Your task to perform on an android device: clear all cookies in the chrome app Image 0: 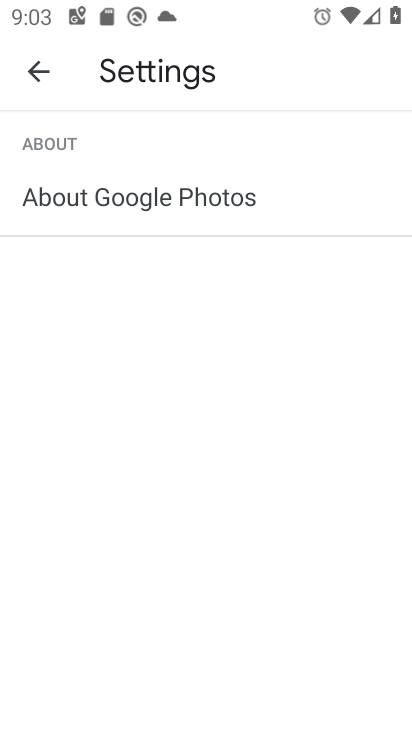
Step 0: press home button
Your task to perform on an android device: clear all cookies in the chrome app Image 1: 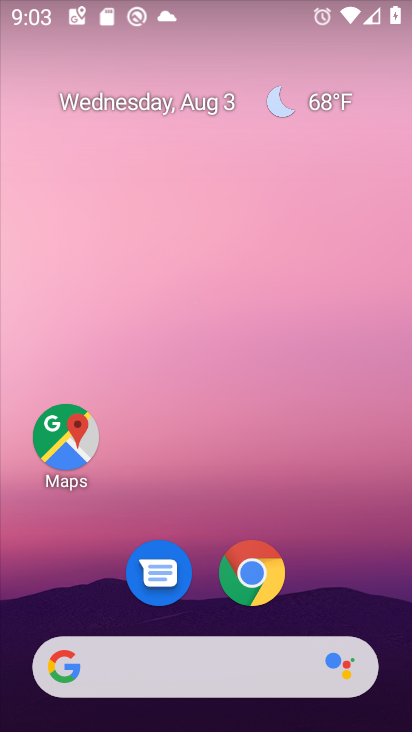
Step 1: click (256, 587)
Your task to perform on an android device: clear all cookies in the chrome app Image 2: 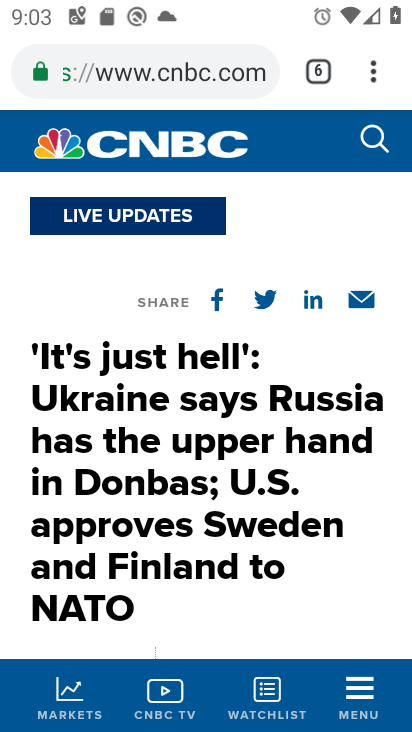
Step 2: click (376, 79)
Your task to perform on an android device: clear all cookies in the chrome app Image 3: 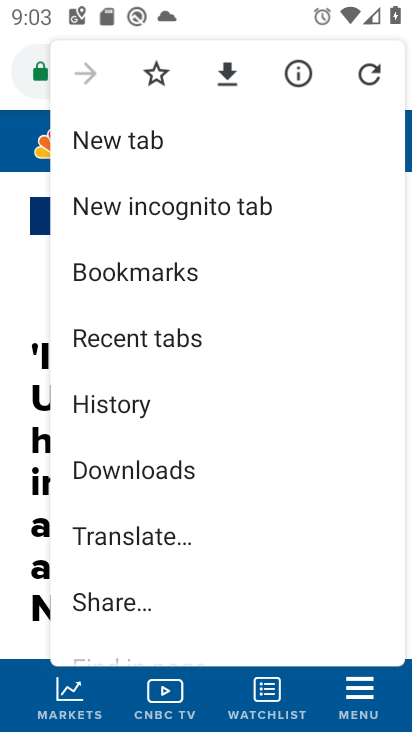
Step 3: drag from (292, 562) to (278, 162)
Your task to perform on an android device: clear all cookies in the chrome app Image 4: 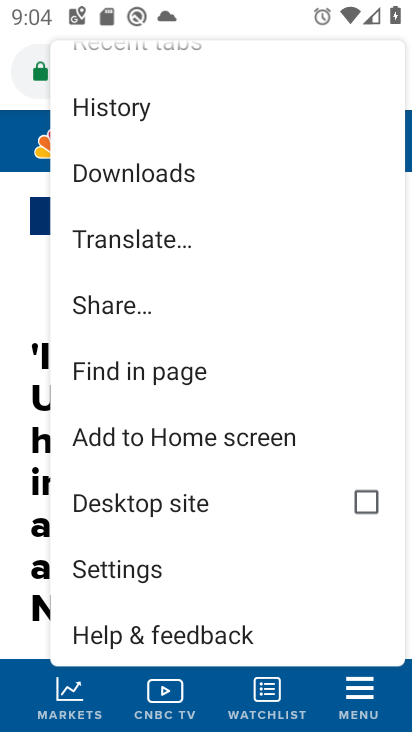
Step 4: click (114, 576)
Your task to perform on an android device: clear all cookies in the chrome app Image 5: 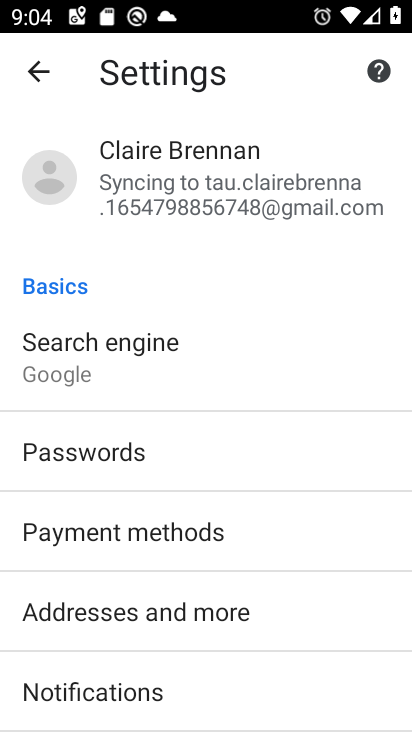
Step 5: drag from (286, 570) to (275, 160)
Your task to perform on an android device: clear all cookies in the chrome app Image 6: 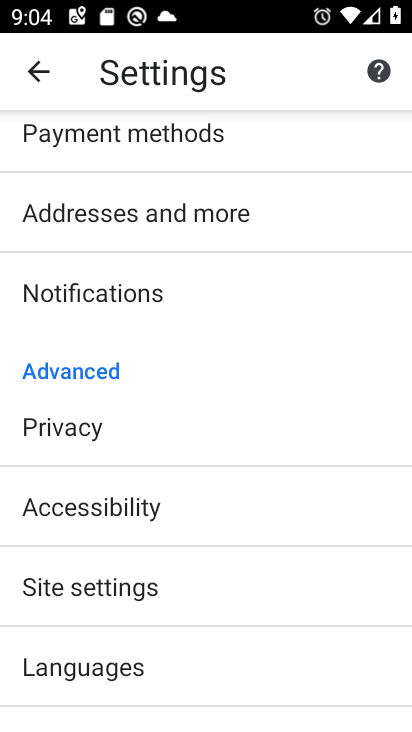
Step 6: click (38, 433)
Your task to perform on an android device: clear all cookies in the chrome app Image 7: 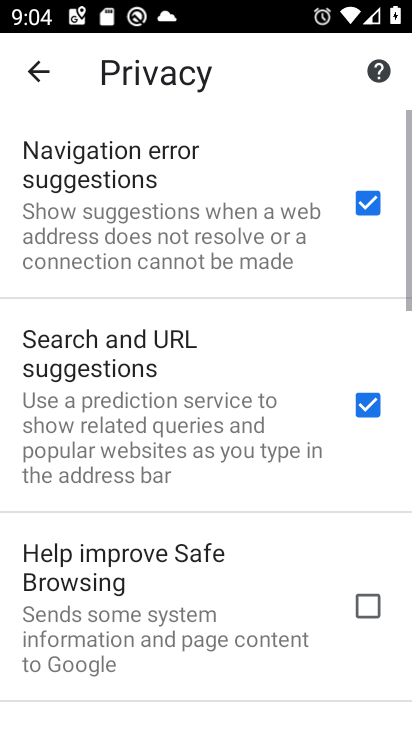
Step 7: drag from (222, 592) to (189, 114)
Your task to perform on an android device: clear all cookies in the chrome app Image 8: 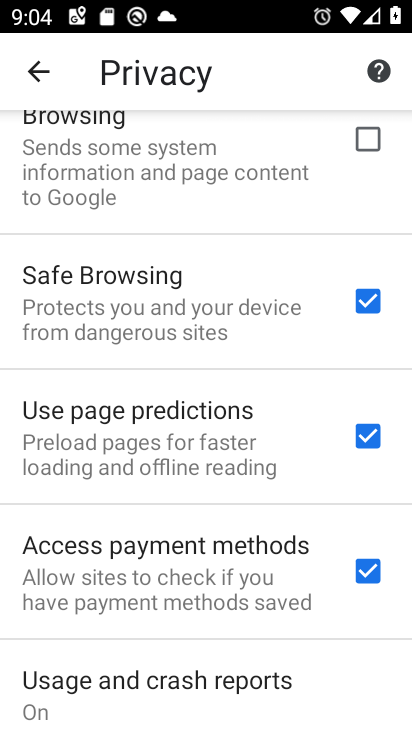
Step 8: drag from (161, 582) to (142, 183)
Your task to perform on an android device: clear all cookies in the chrome app Image 9: 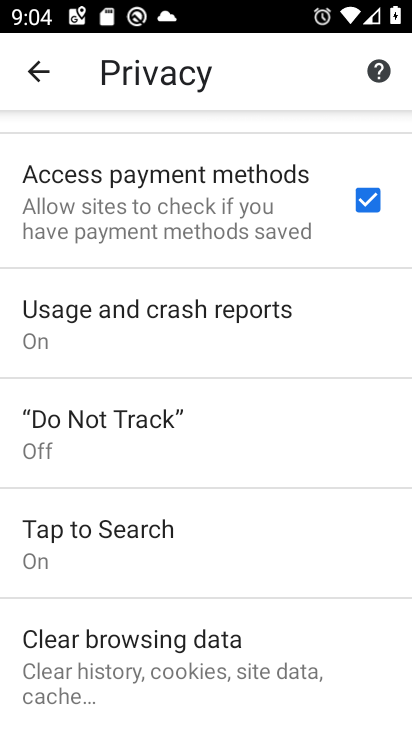
Step 9: drag from (100, 597) to (110, 211)
Your task to perform on an android device: clear all cookies in the chrome app Image 10: 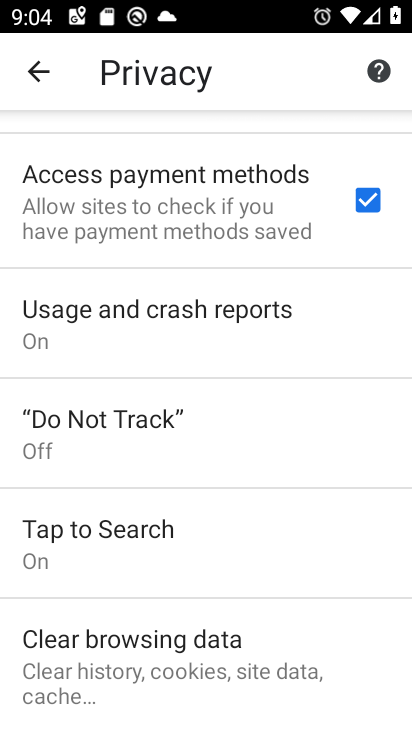
Step 10: click (101, 653)
Your task to perform on an android device: clear all cookies in the chrome app Image 11: 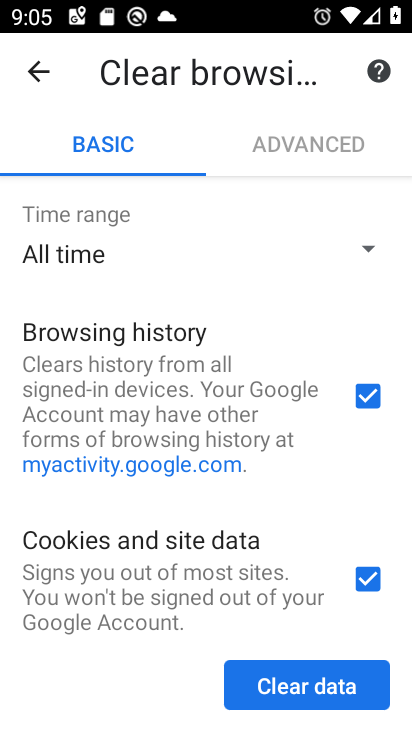
Step 11: click (368, 391)
Your task to perform on an android device: clear all cookies in the chrome app Image 12: 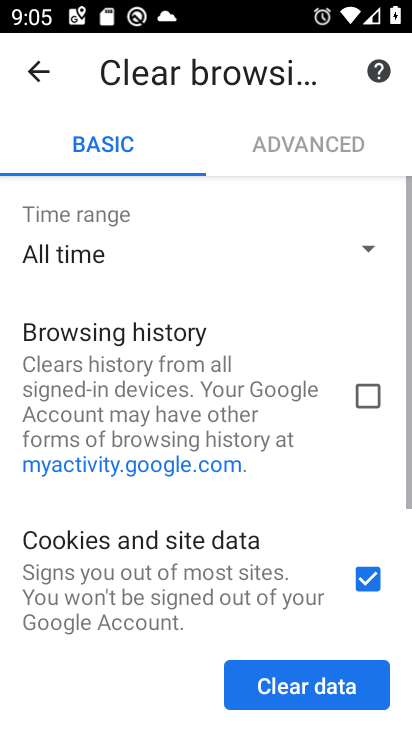
Step 12: drag from (138, 462) to (154, 193)
Your task to perform on an android device: clear all cookies in the chrome app Image 13: 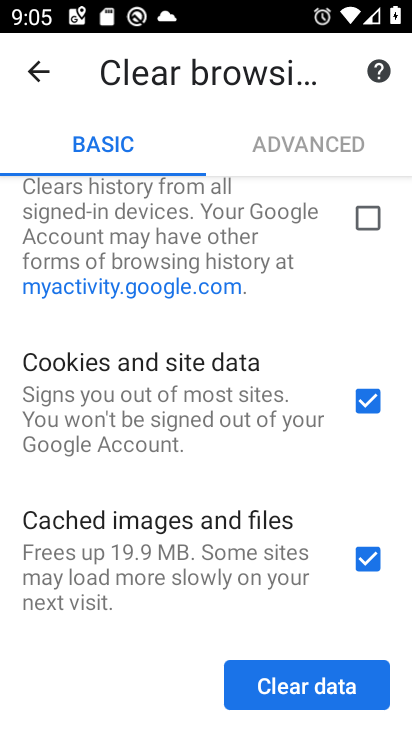
Step 13: drag from (155, 516) to (165, 336)
Your task to perform on an android device: clear all cookies in the chrome app Image 14: 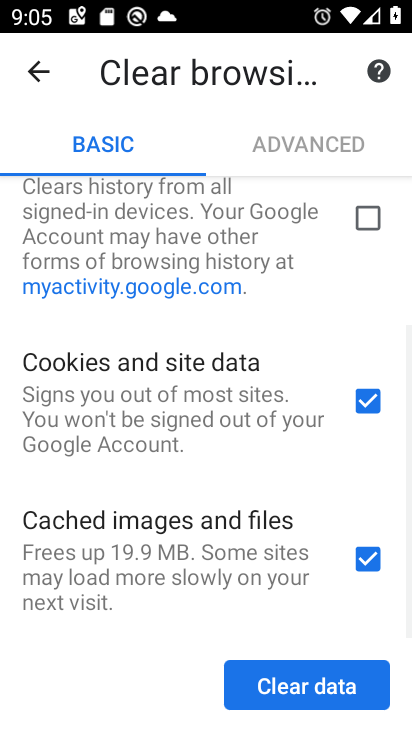
Step 14: click (367, 560)
Your task to perform on an android device: clear all cookies in the chrome app Image 15: 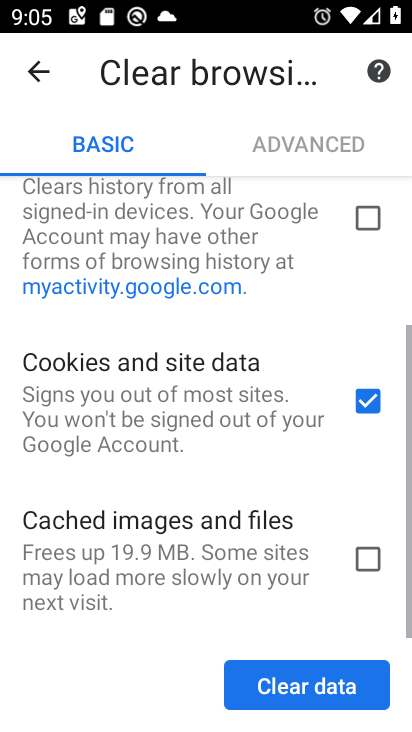
Step 15: click (333, 689)
Your task to perform on an android device: clear all cookies in the chrome app Image 16: 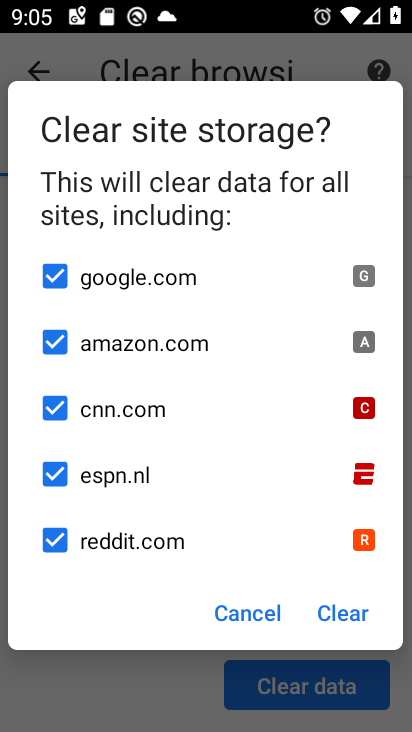
Step 16: click (337, 608)
Your task to perform on an android device: clear all cookies in the chrome app Image 17: 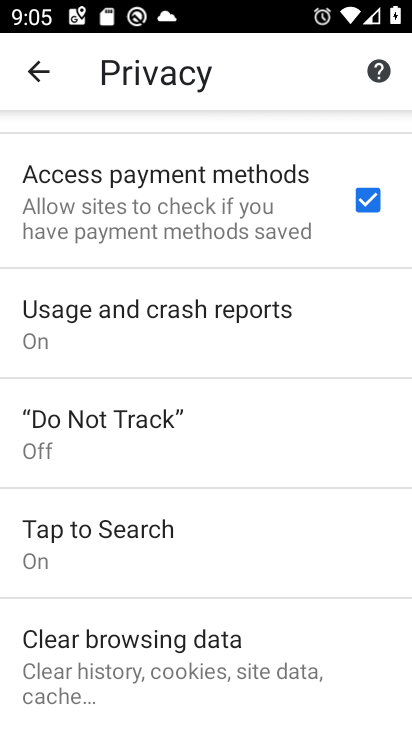
Step 17: task complete